Your task to perform on an android device: Go to Wikipedia Image 0: 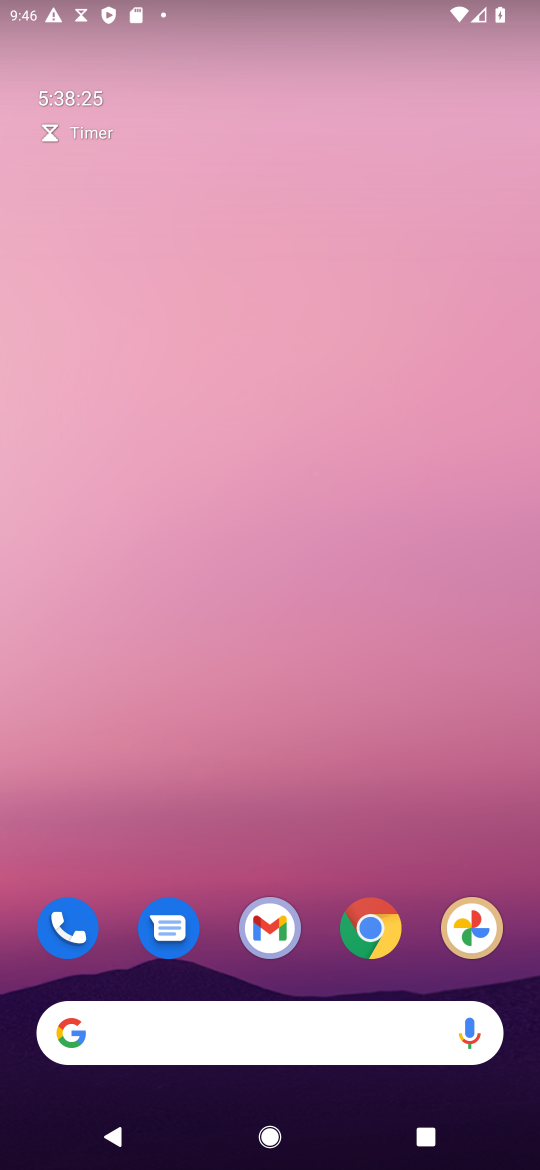
Step 0: press home button
Your task to perform on an android device: Go to Wikipedia Image 1: 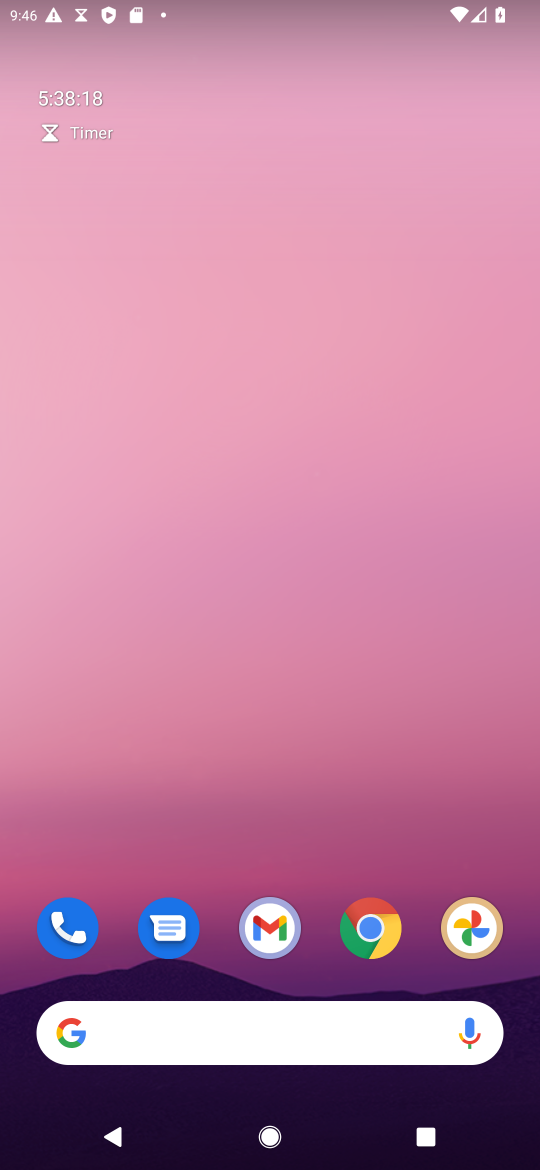
Step 1: click (66, 1030)
Your task to perform on an android device: Go to Wikipedia Image 2: 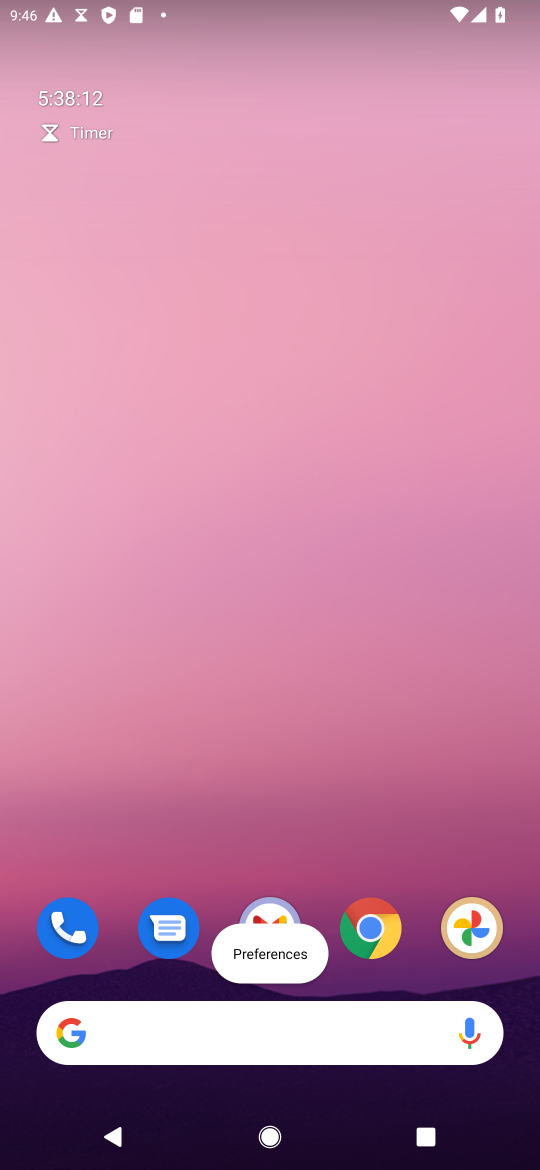
Step 2: click (75, 1030)
Your task to perform on an android device: Go to Wikipedia Image 3: 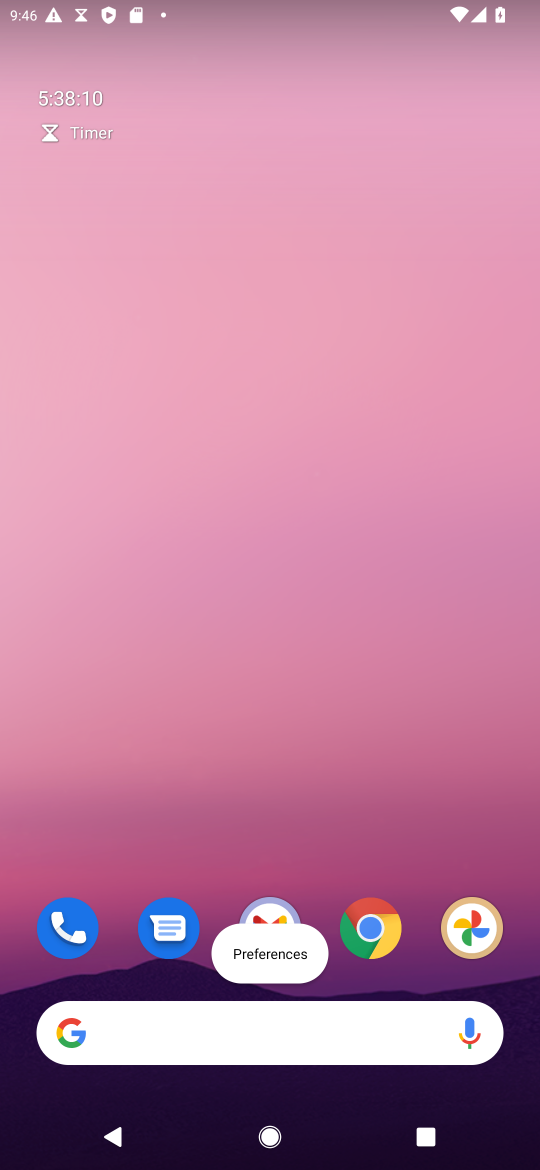
Step 3: click (71, 1029)
Your task to perform on an android device: Go to Wikipedia Image 4: 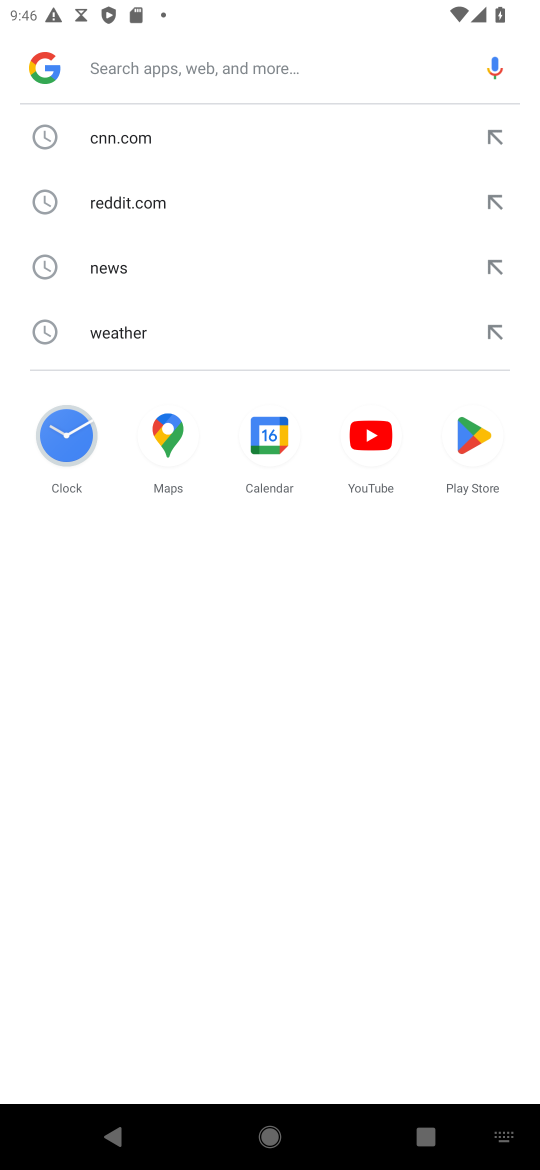
Step 4: type "Wikipedia"
Your task to perform on an android device: Go to Wikipedia Image 5: 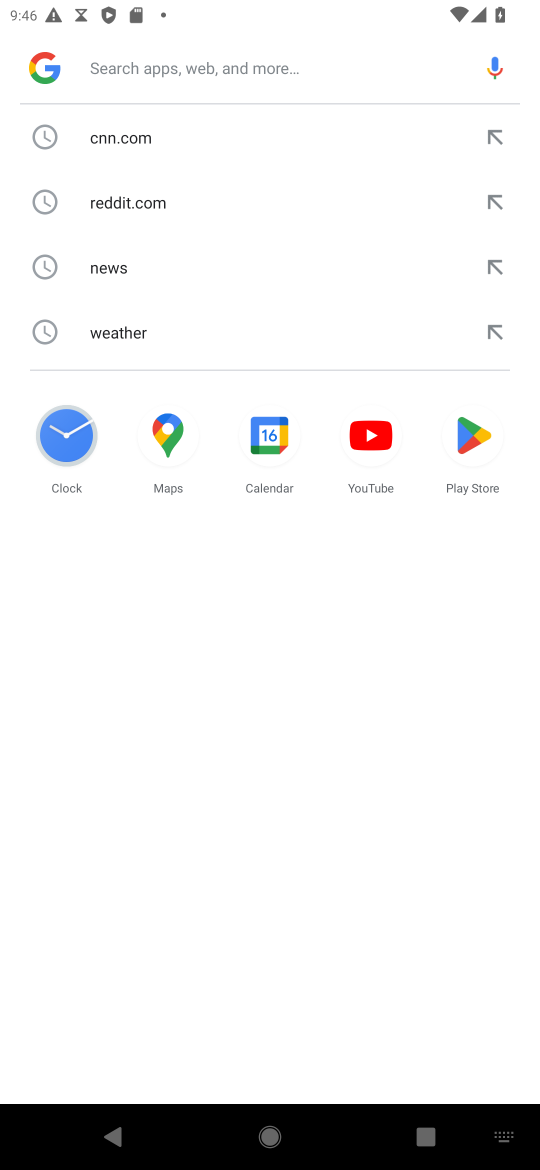
Step 5: click (119, 61)
Your task to perform on an android device: Go to Wikipedia Image 6: 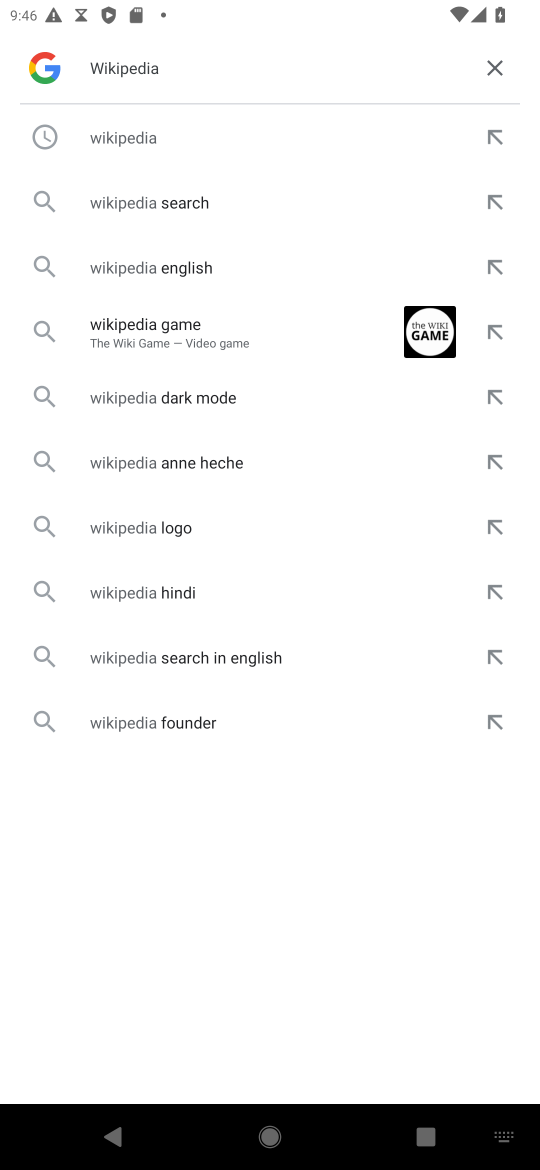
Step 6: press enter
Your task to perform on an android device: Go to Wikipedia Image 7: 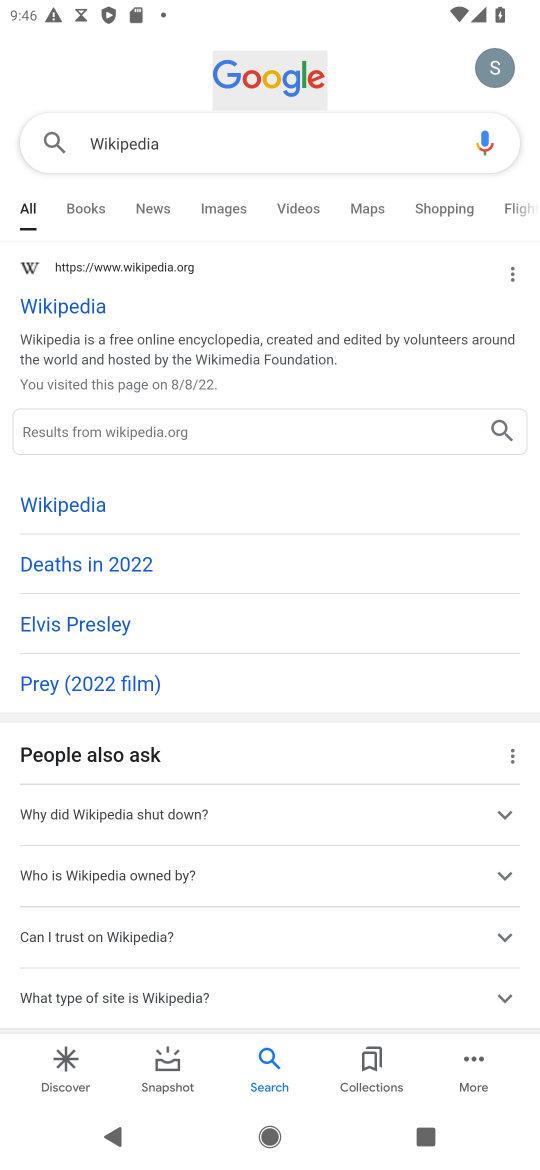
Step 7: click (59, 313)
Your task to perform on an android device: Go to Wikipedia Image 8: 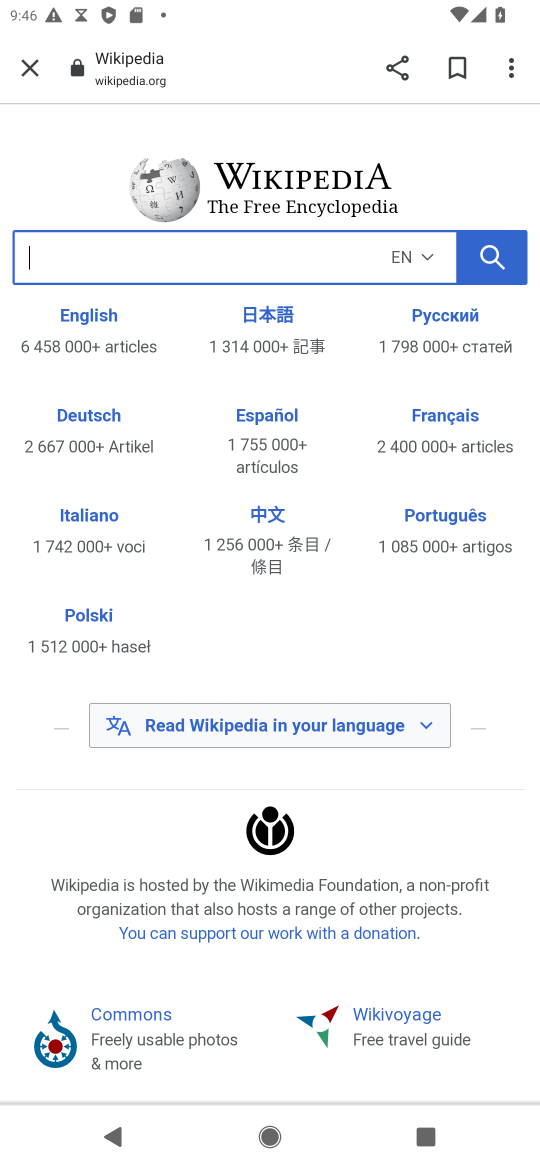
Step 8: task complete